Your task to perform on an android device: Go to battery settings Image 0: 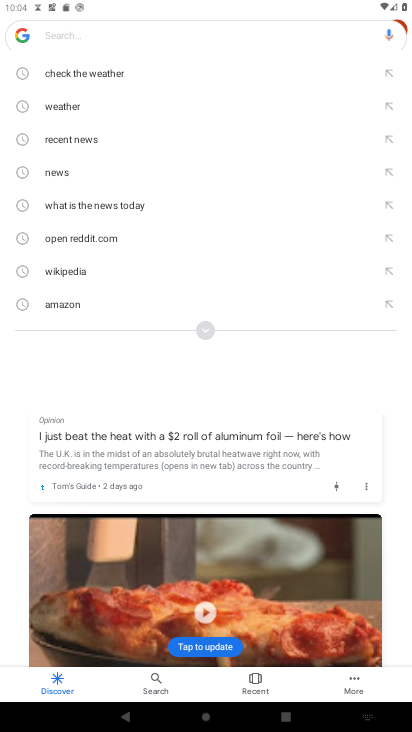
Step 0: press home button
Your task to perform on an android device: Go to battery settings Image 1: 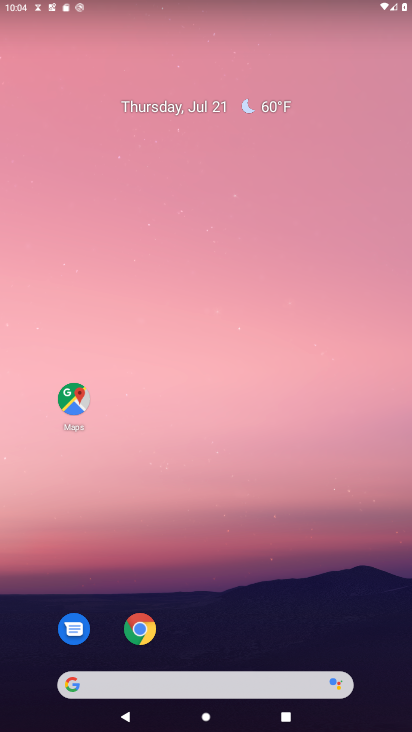
Step 1: drag from (214, 661) to (255, 203)
Your task to perform on an android device: Go to battery settings Image 2: 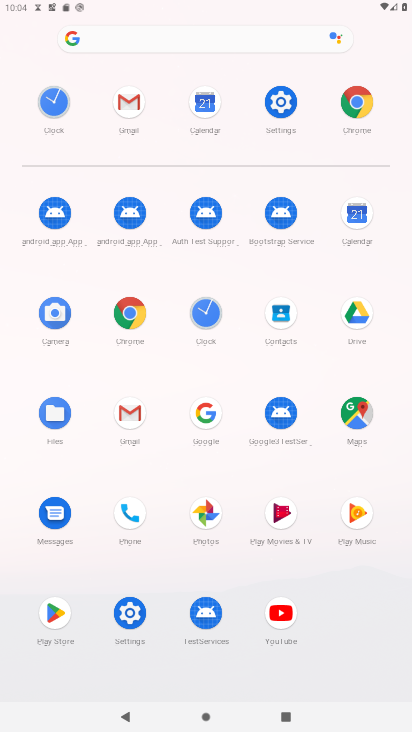
Step 2: click (299, 100)
Your task to perform on an android device: Go to battery settings Image 3: 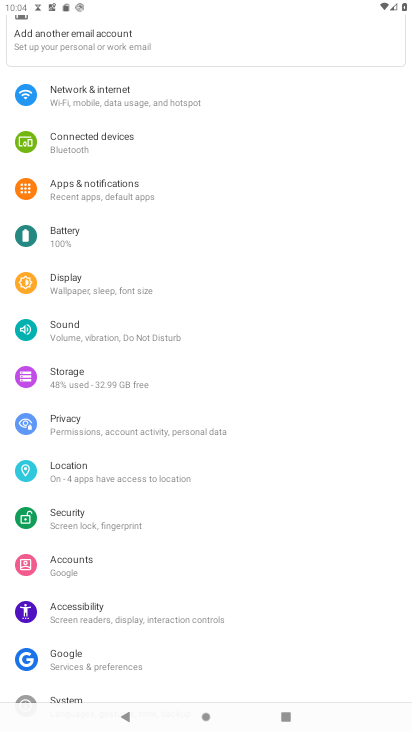
Step 3: click (73, 237)
Your task to perform on an android device: Go to battery settings Image 4: 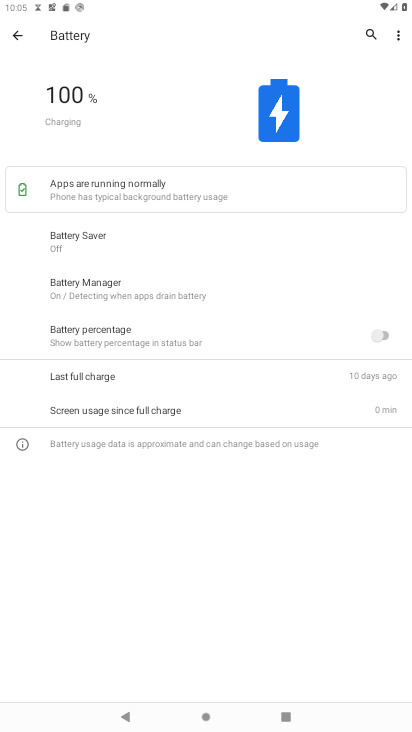
Step 4: task complete